Your task to perform on an android device: Search for a home improvement project you can do. Image 0: 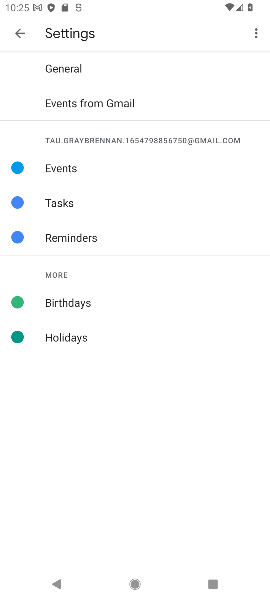
Step 0: press home button
Your task to perform on an android device: Search for a home improvement project you can do. Image 1: 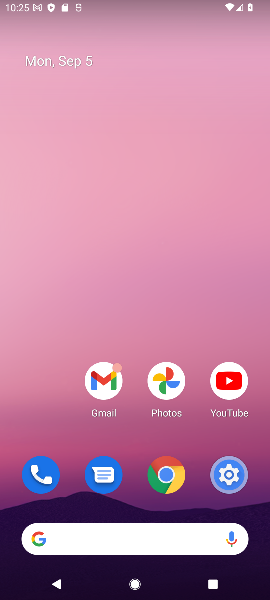
Step 1: click (131, 540)
Your task to perform on an android device: Search for a home improvement project you can do. Image 2: 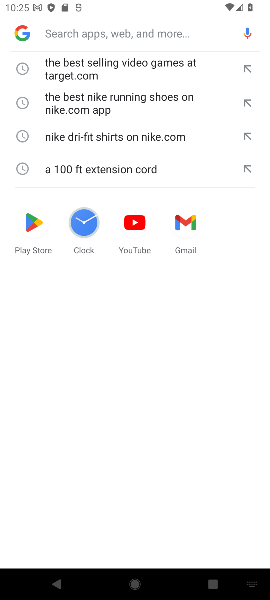
Step 2: type "a home improvement project you can do"
Your task to perform on an android device: Search for a home improvement project you can do. Image 3: 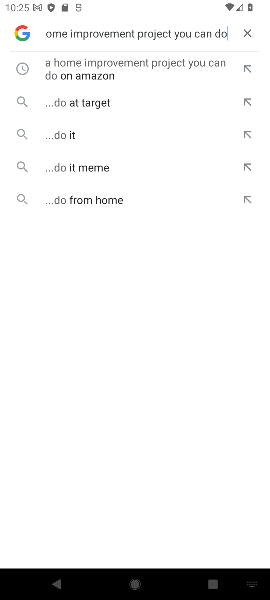
Step 3: click (82, 78)
Your task to perform on an android device: Search for a home improvement project you can do. Image 4: 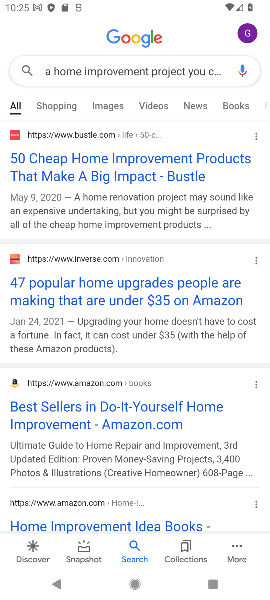
Step 4: click (130, 185)
Your task to perform on an android device: Search for a home improvement project you can do. Image 5: 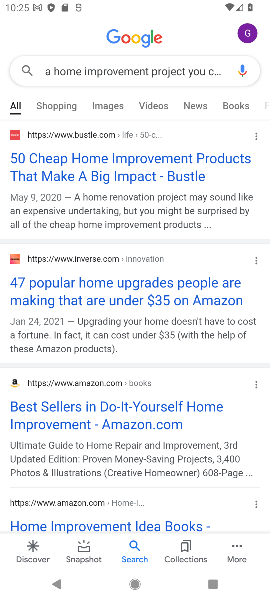
Step 5: click (180, 237)
Your task to perform on an android device: Search for a home improvement project you can do. Image 6: 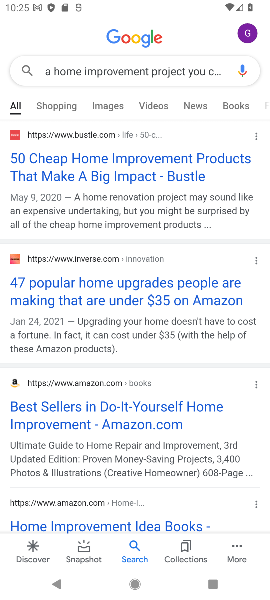
Step 6: task complete